Your task to perform on an android device: Open Google Chrome Image 0: 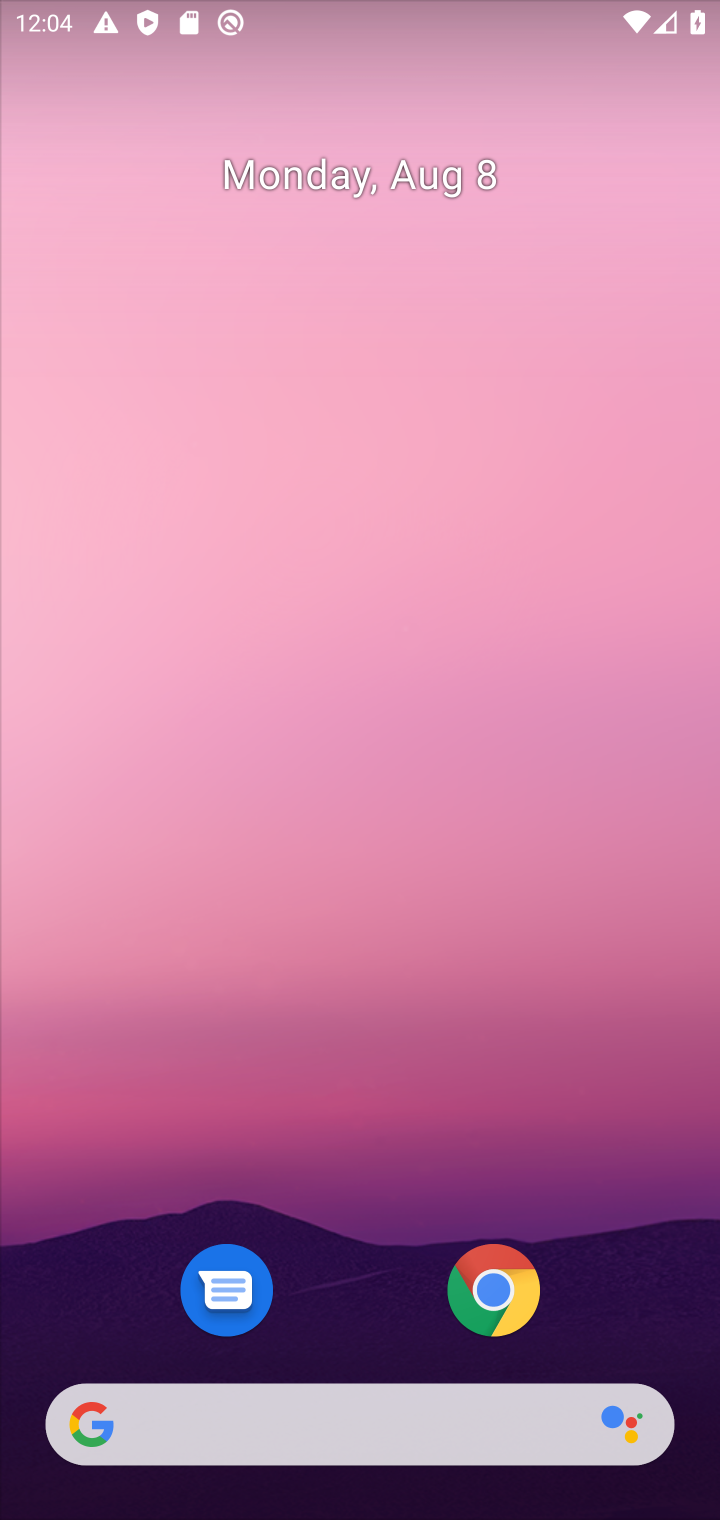
Step 0: press home button
Your task to perform on an android device: Open Google Chrome Image 1: 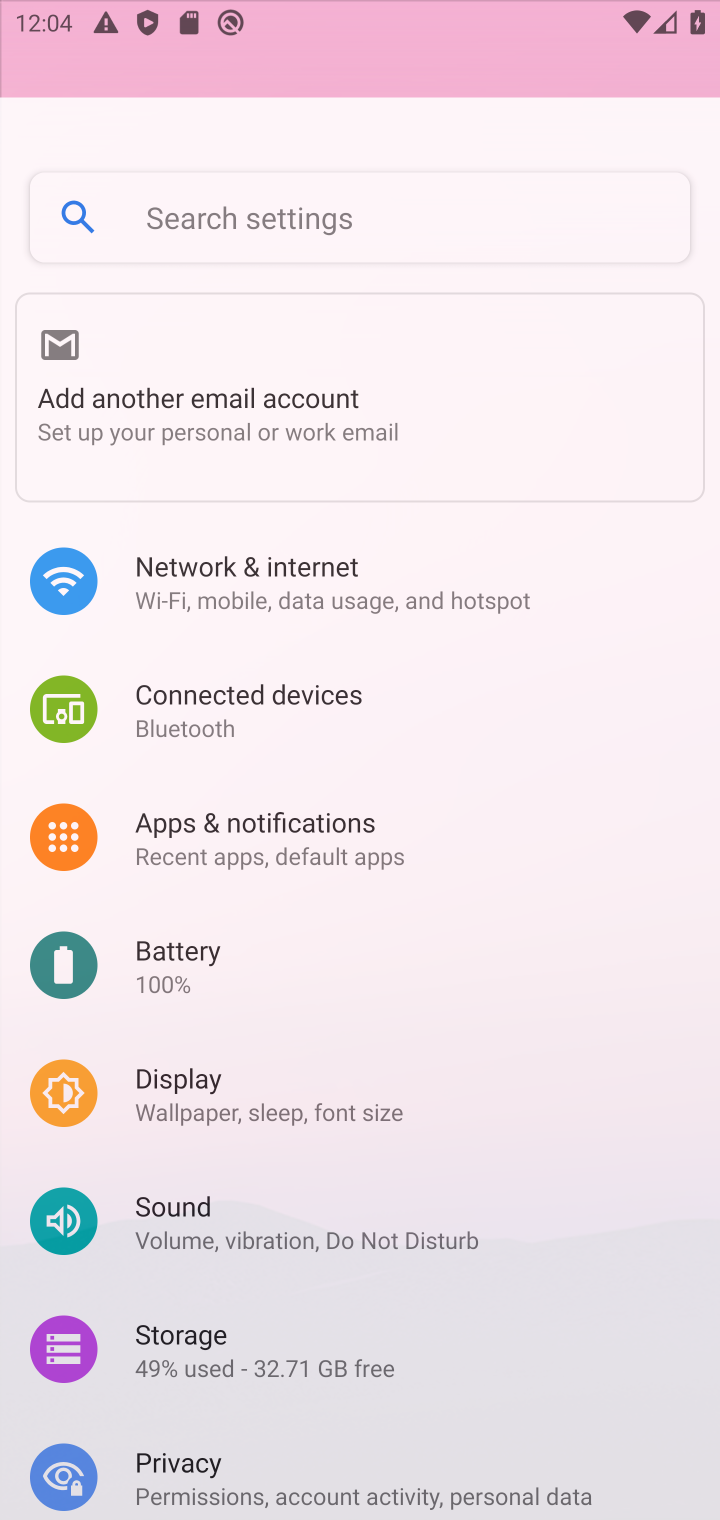
Step 1: click (491, 1268)
Your task to perform on an android device: Open Google Chrome Image 2: 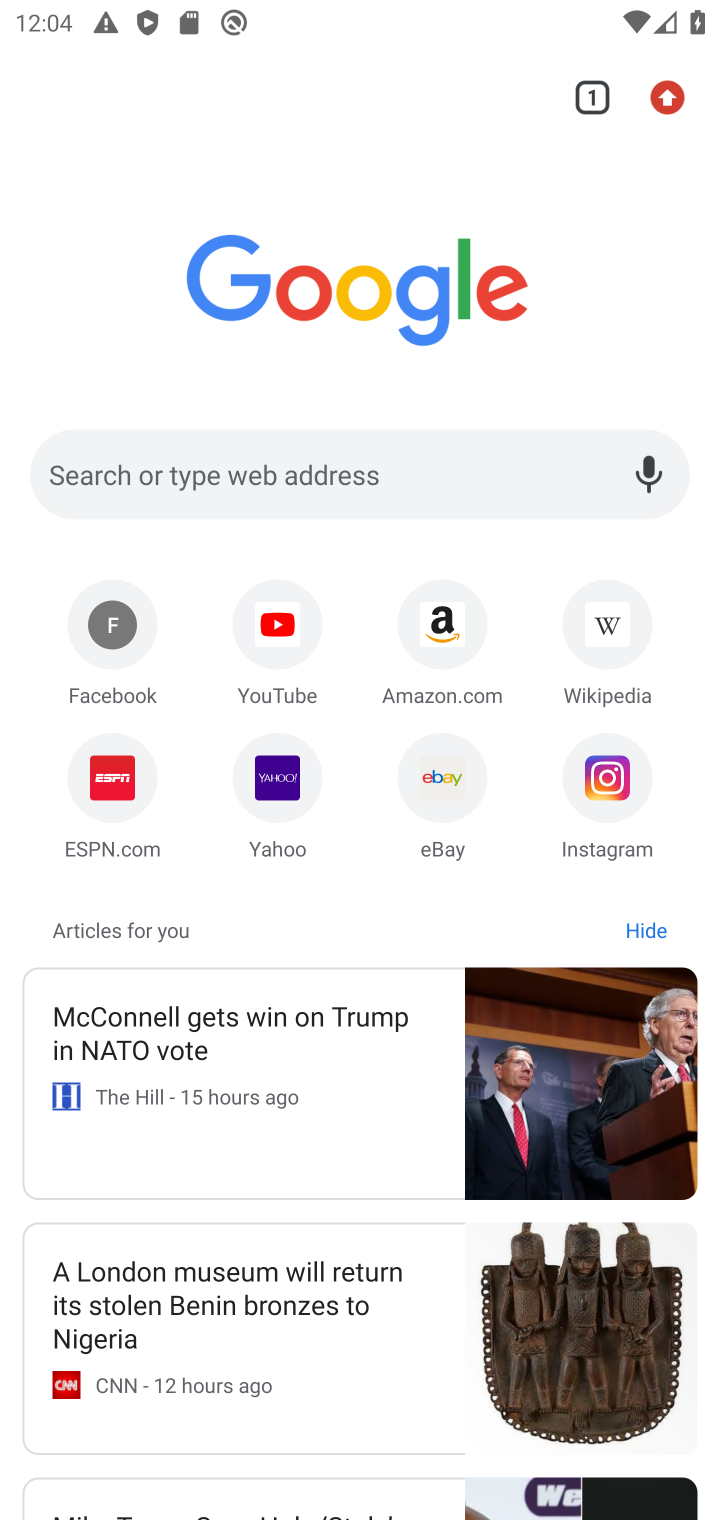
Step 2: task complete